Your task to perform on an android device: toggle translation in the chrome app Image 0: 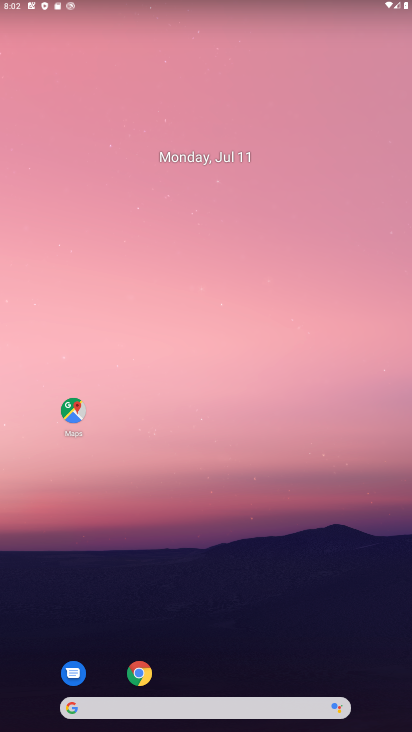
Step 0: press home button
Your task to perform on an android device: toggle translation in the chrome app Image 1: 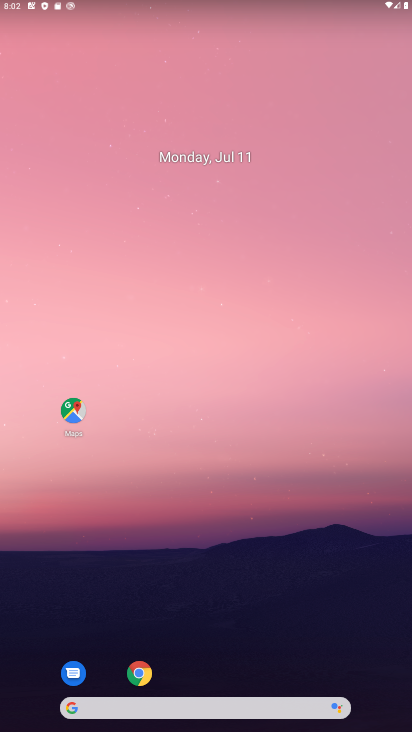
Step 1: click (142, 671)
Your task to perform on an android device: toggle translation in the chrome app Image 2: 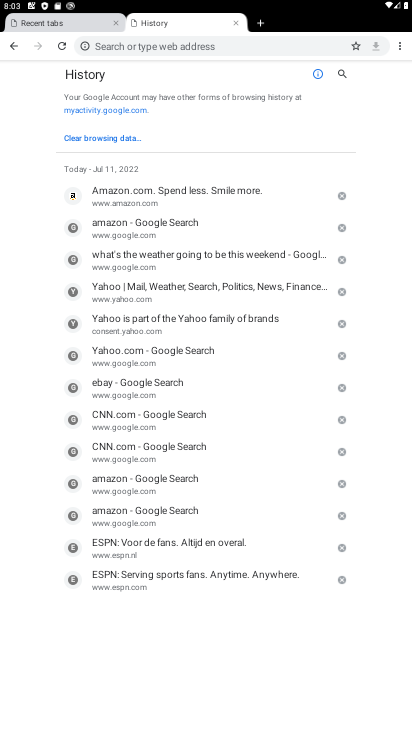
Step 2: click (400, 44)
Your task to perform on an android device: toggle translation in the chrome app Image 3: 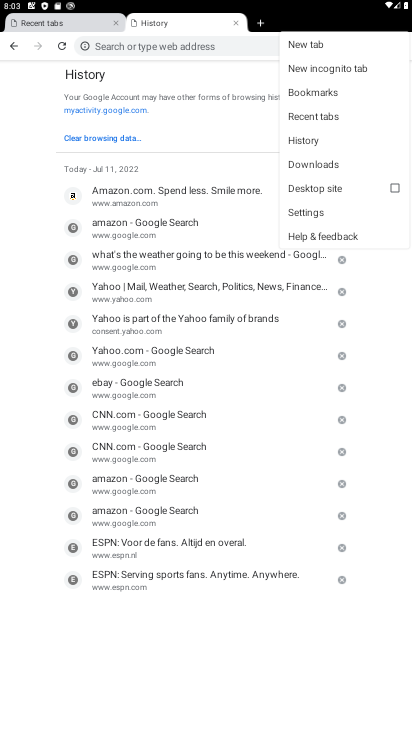
Step 3: click (329, 213)
Your task to perform on an android device: toggle translation in the chrome app Image 4: 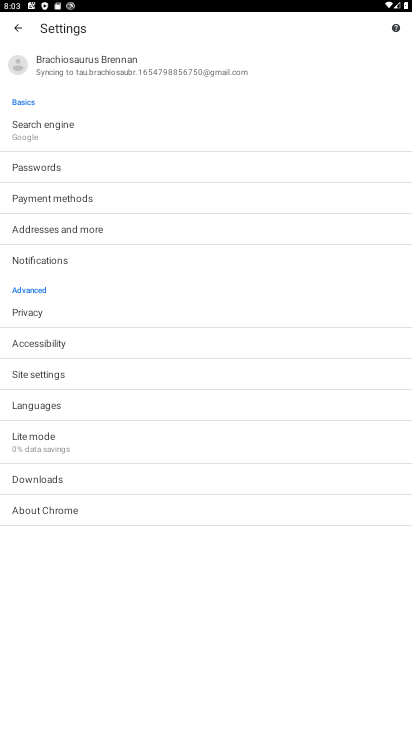
Step 4: click (74, 402)
Your task to perform on an android device: toggle translation in the chrome app Image 5: 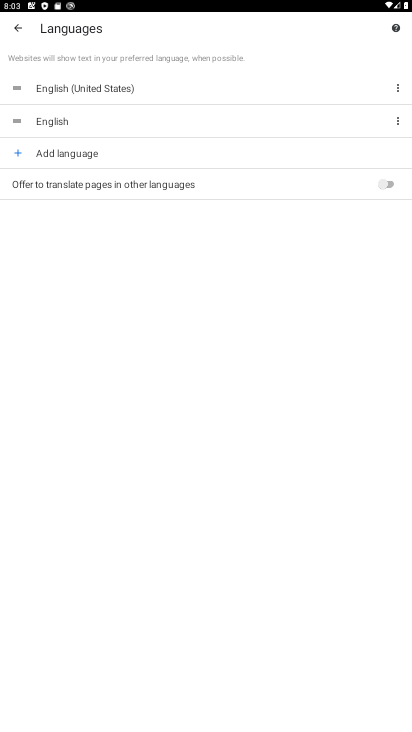
Step 5: click (387, 183)
Your task to perform on an android device: toggle translation in the chrome app Image 6: 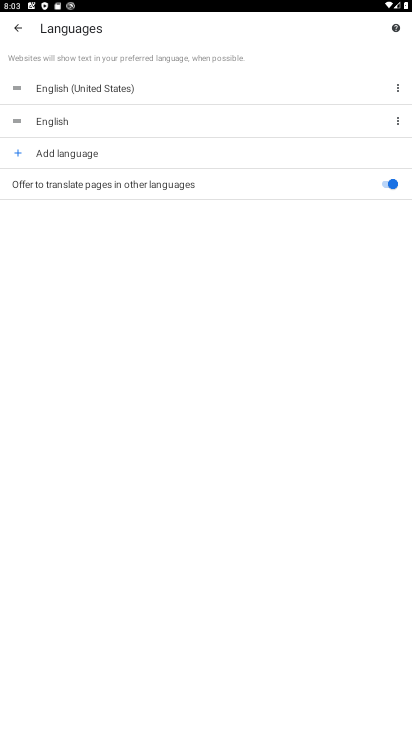
Step 6: task complete